Your task to perform on an android device: View the shopping cart on walmart. Image 0: 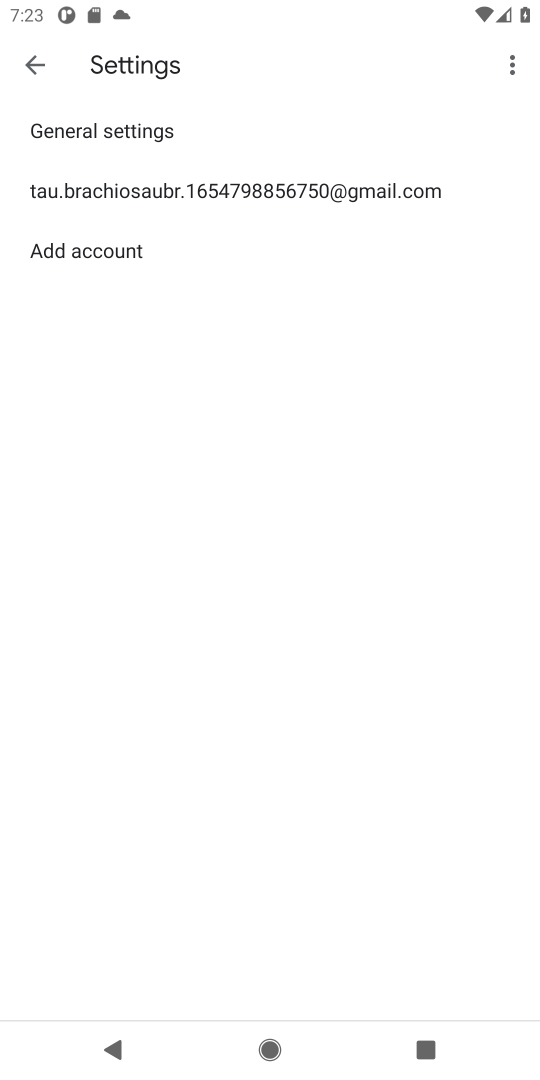
Step 0: press home button
Your task to perform on an android device: View the shopping cart on walmart. Image 1: 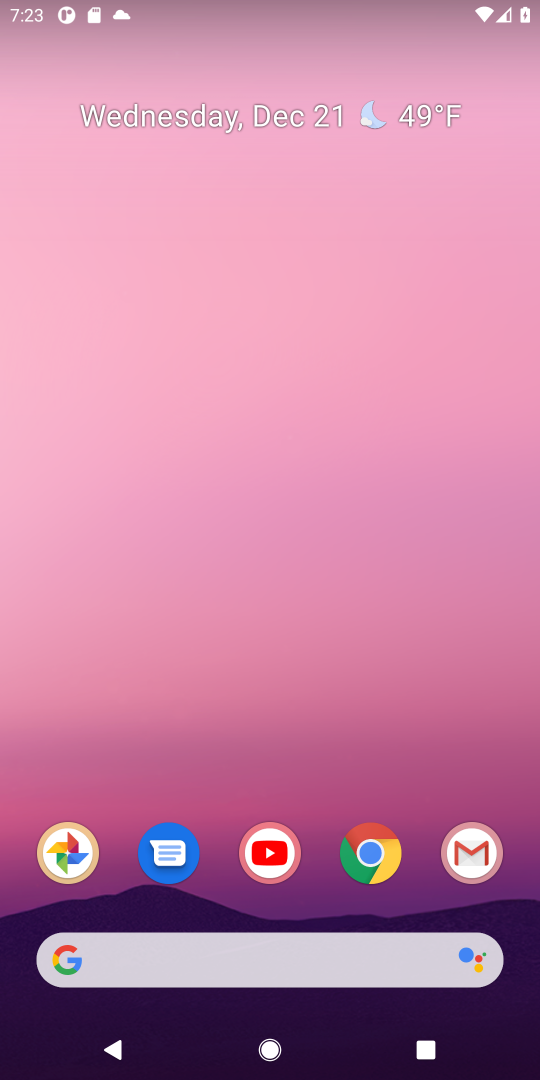
Step 1: click (371, 842)
Your task to perform on an android device: View the shopping cart on walmart. Image 2: 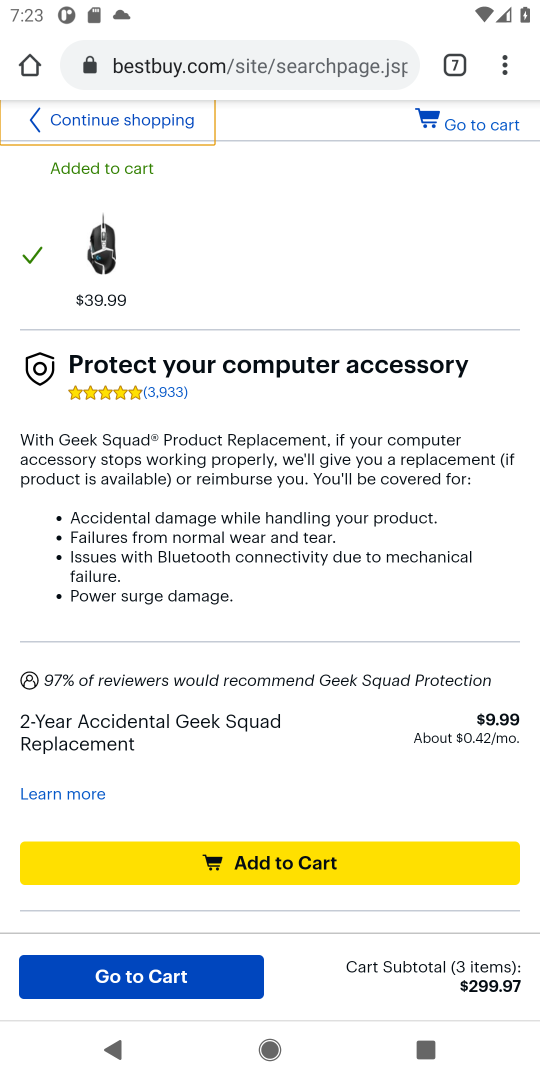
Step 2: click (462, 61)
Your task to perform on an android device: View the shopping cart on walmart. Image 3: 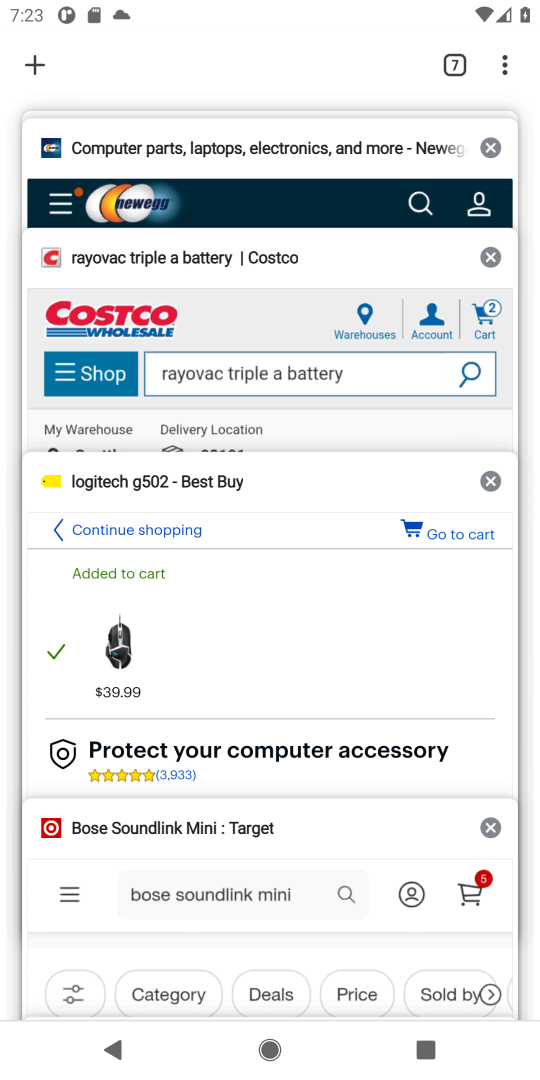
Step 3: drag from (219, 139) to (175, 439)
Your task to perform on an android device: View the shopping cart on walmart. Image 4: 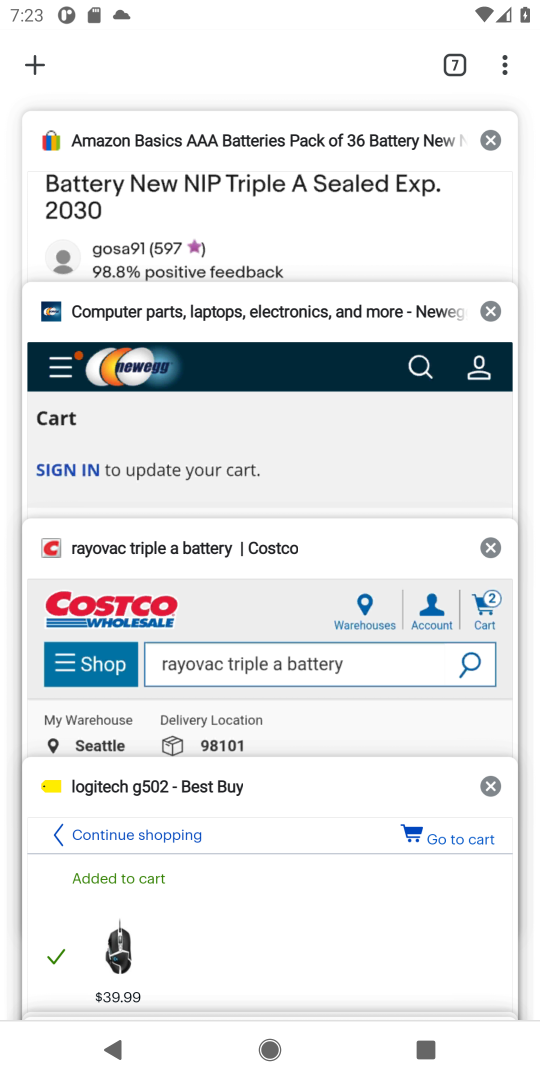
Step 4: drag from (160, 919) to (181, 198)
Your task to perform on an android device: View the shopping cart on walmart. Image 5: 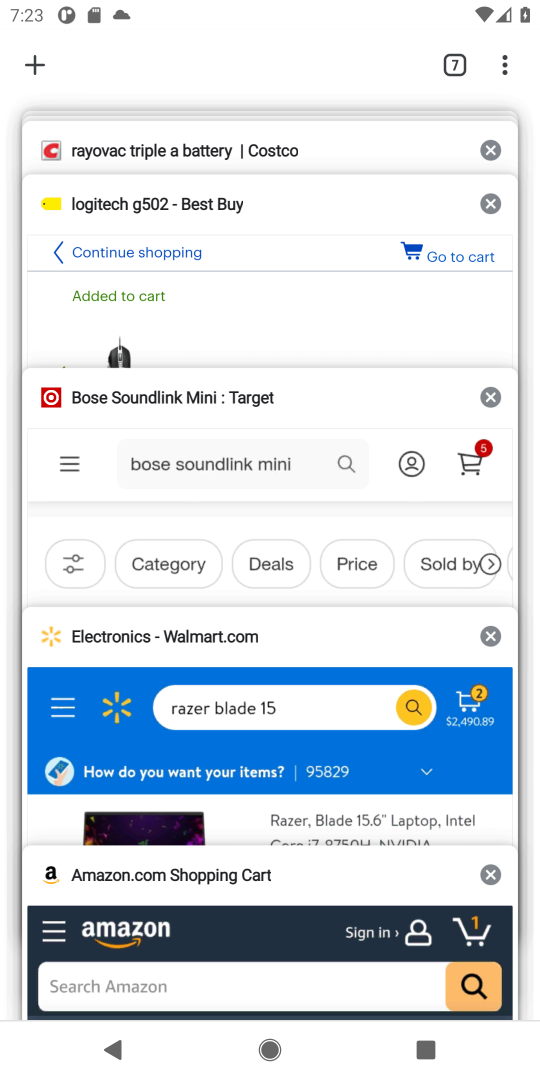
Step 5: click (251, 709)
Your task to perform on an android device: View the shopping cart on walmart. Image 6: 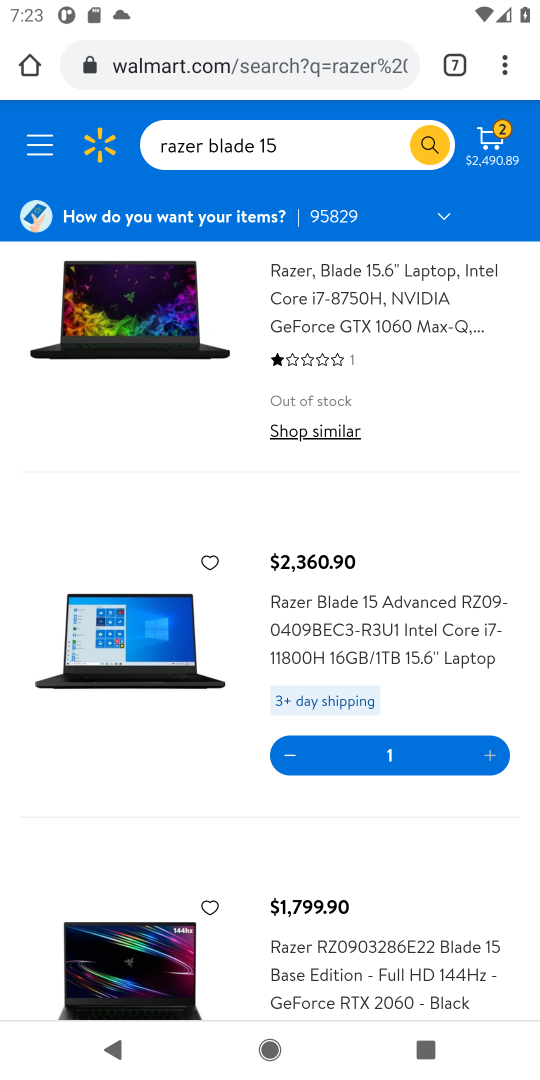
Step 6: click (478, 140)
Your task to perform on an android device: View the shopping cart on walmart. Image 7: 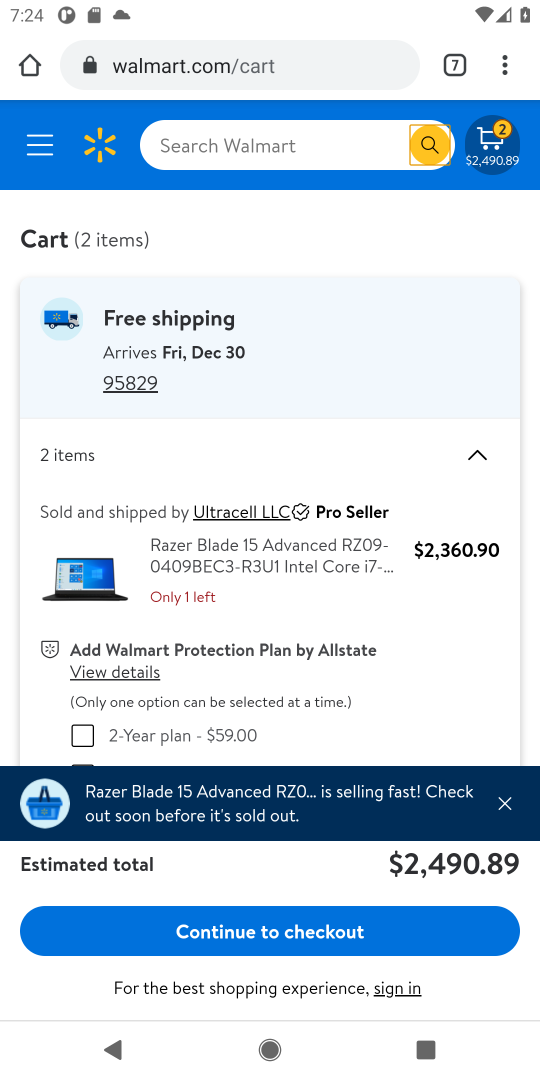
Step 7: task complete